Your task to perform on an android device: Install the CNN app Image 0: 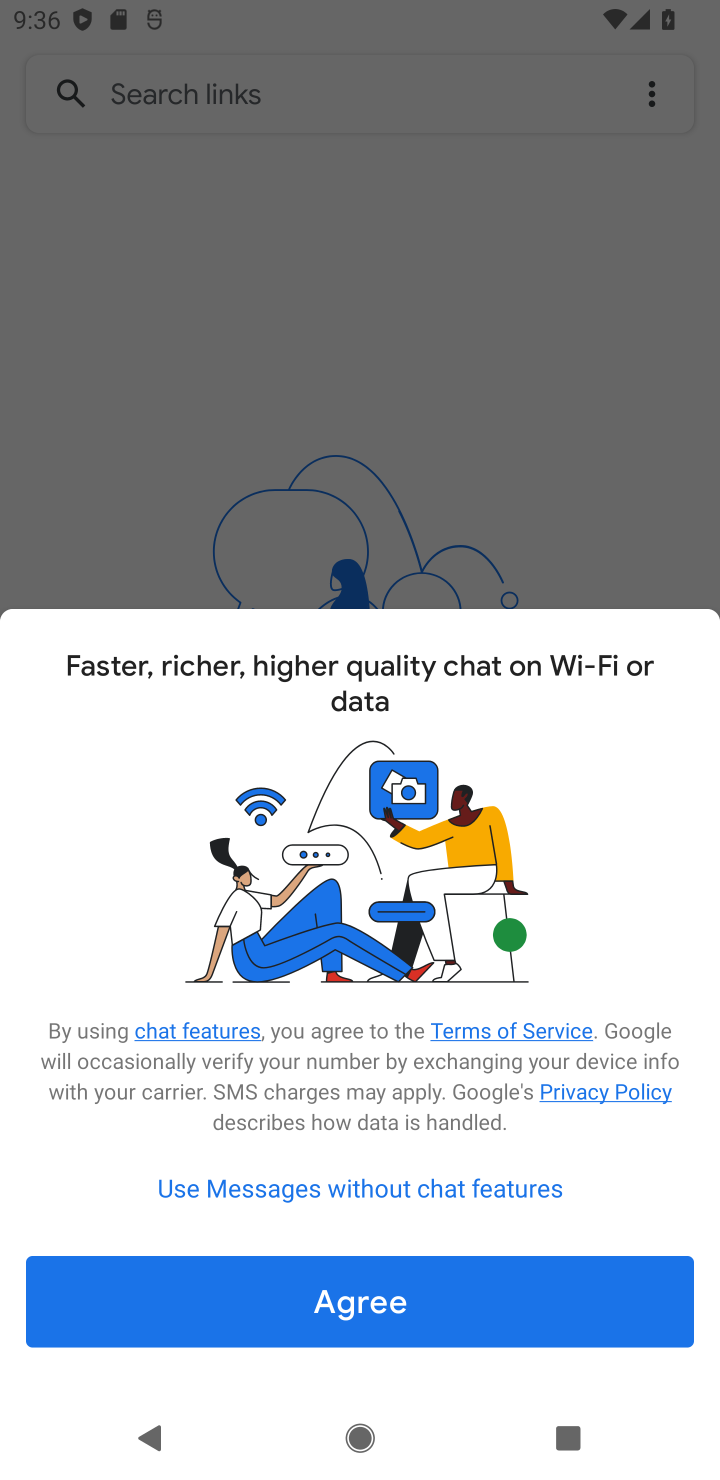
Step 0: press home button
Your task to perform on an android device: Install the CNN app Image 1: 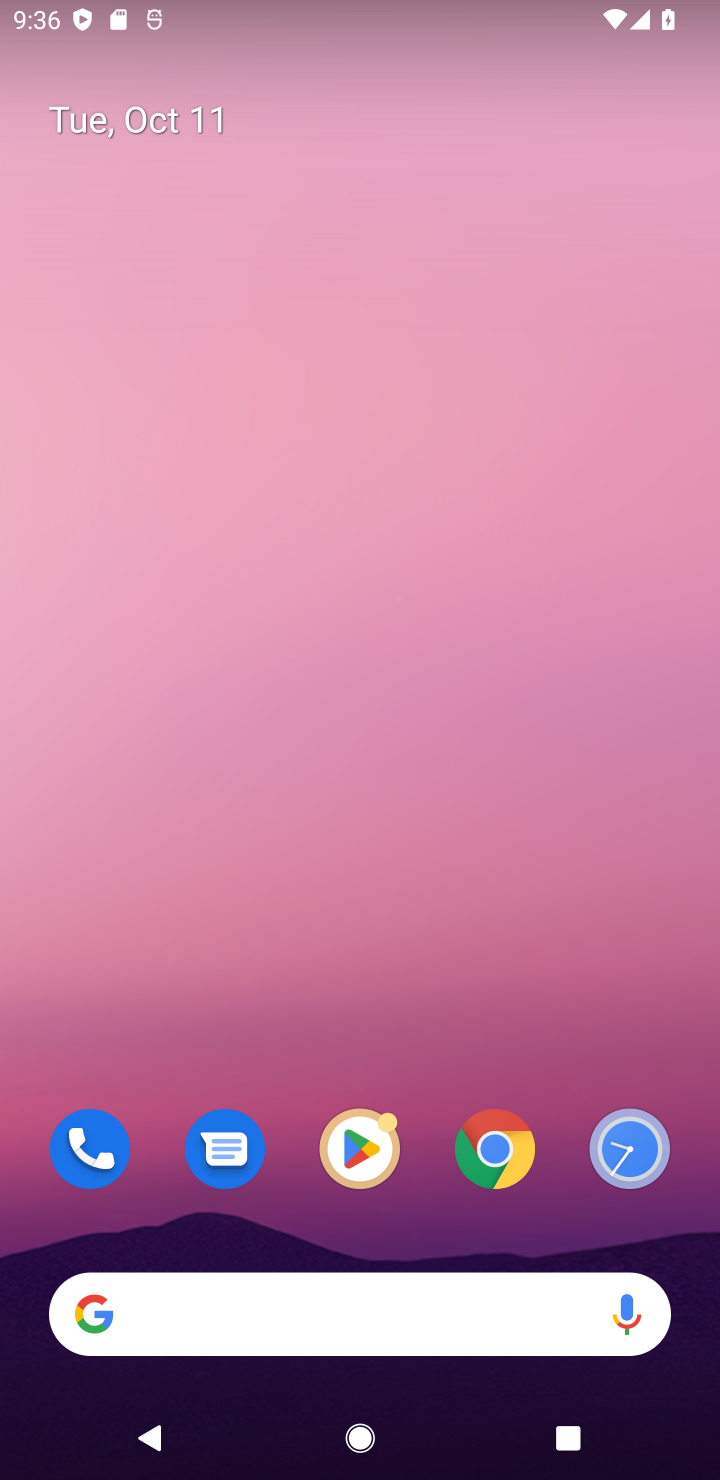
Step 1: click (359, 1154)
Your task to perform on an android device: Install the CNN app Image 2: 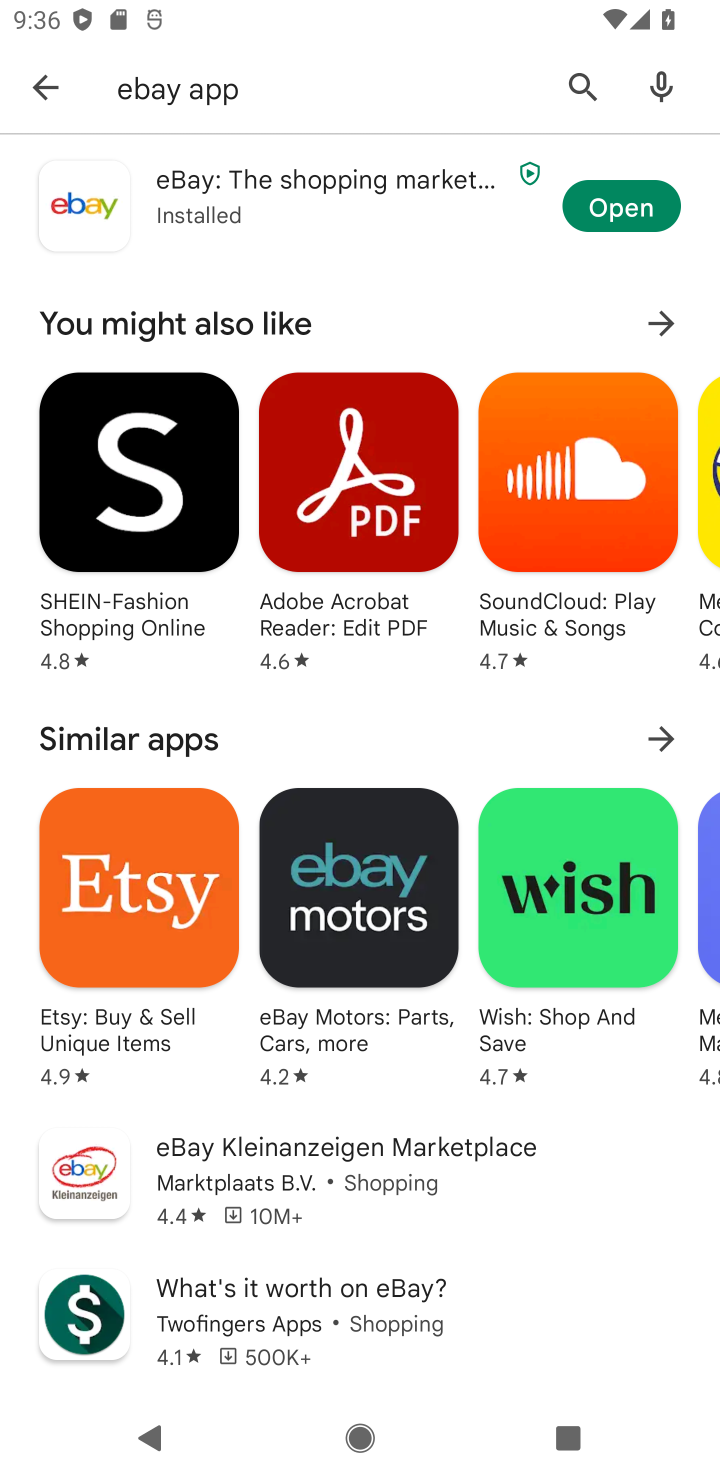
Step 2: click (41, 88)
Your task to perform on an android device: Install the CNN app Image 3: 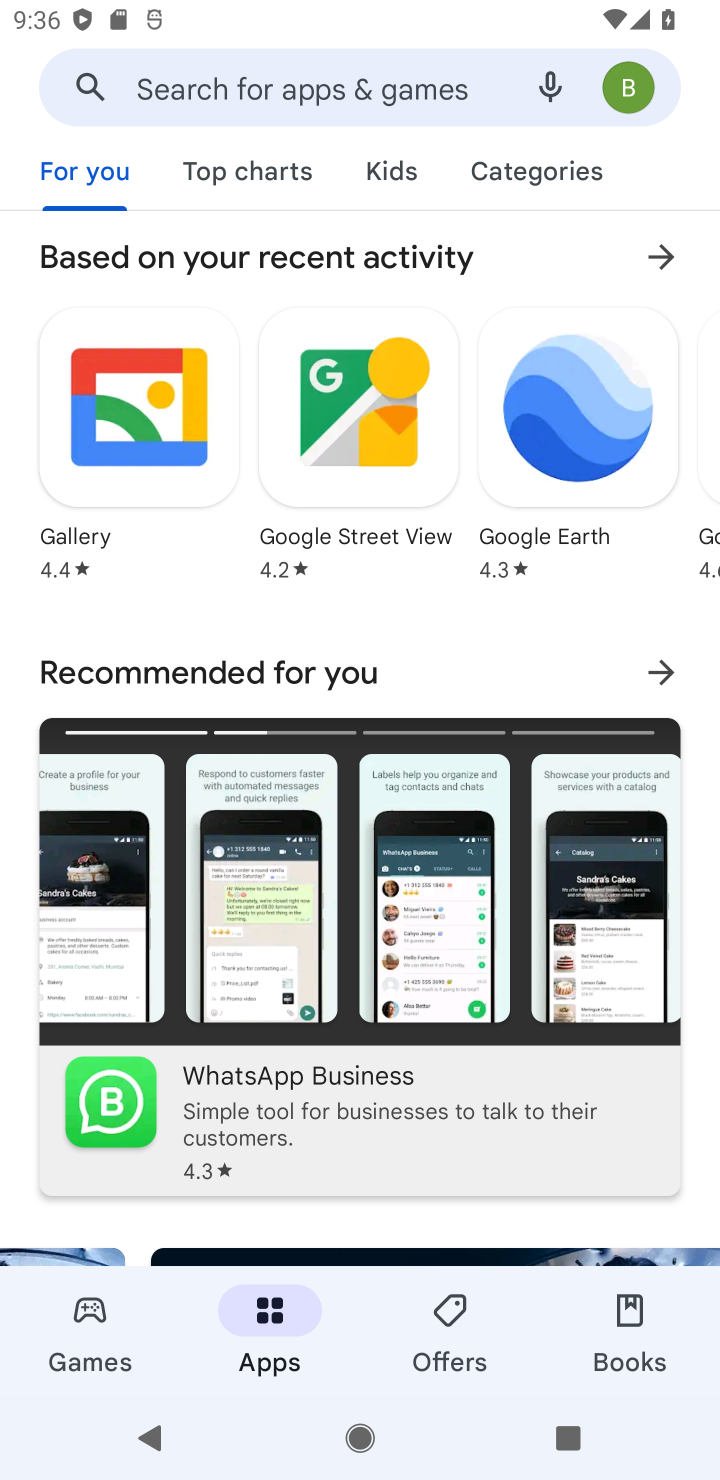
Step 3: click (287, 78)
Your task to perform on an android device: Install the CNN app Image 4: 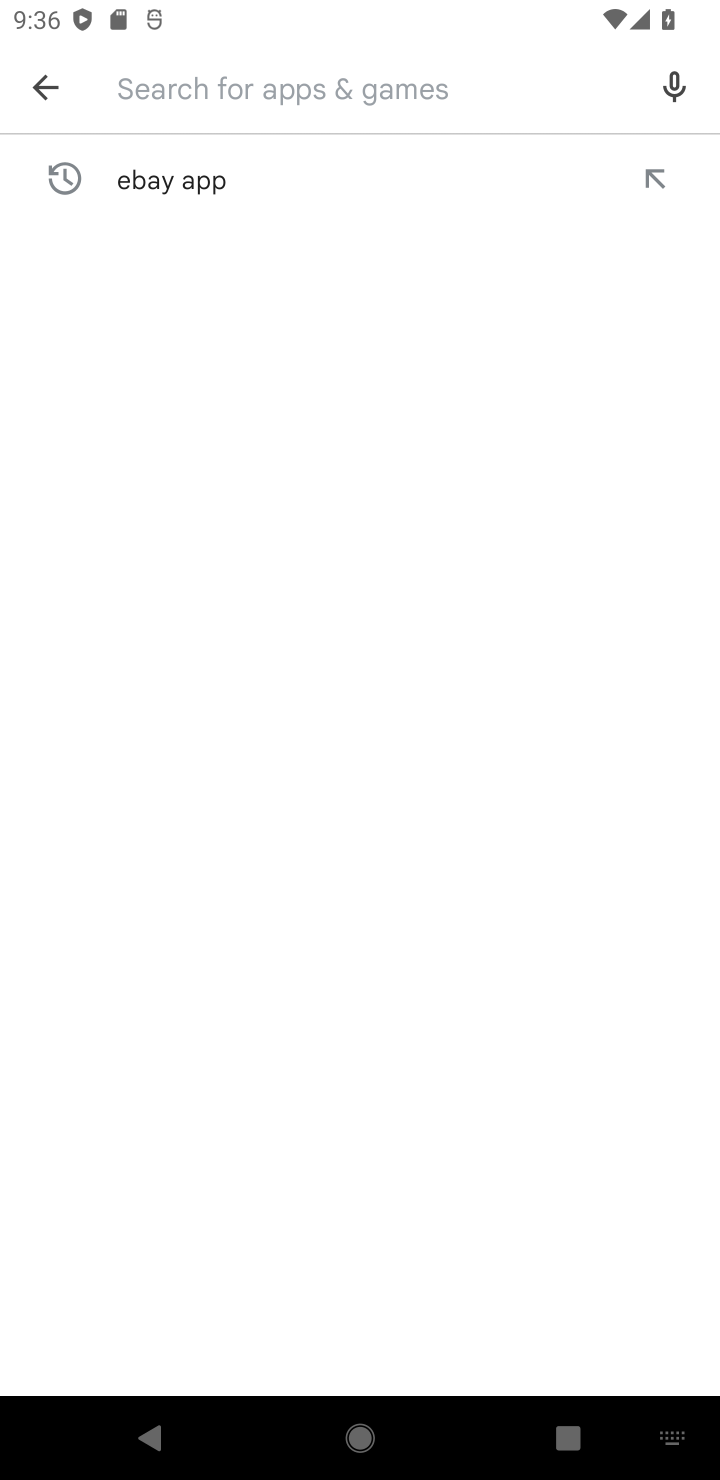
Step 4: type "Install the CNN app"
Your task to perform on an android device: Install the CNN app Image 5: 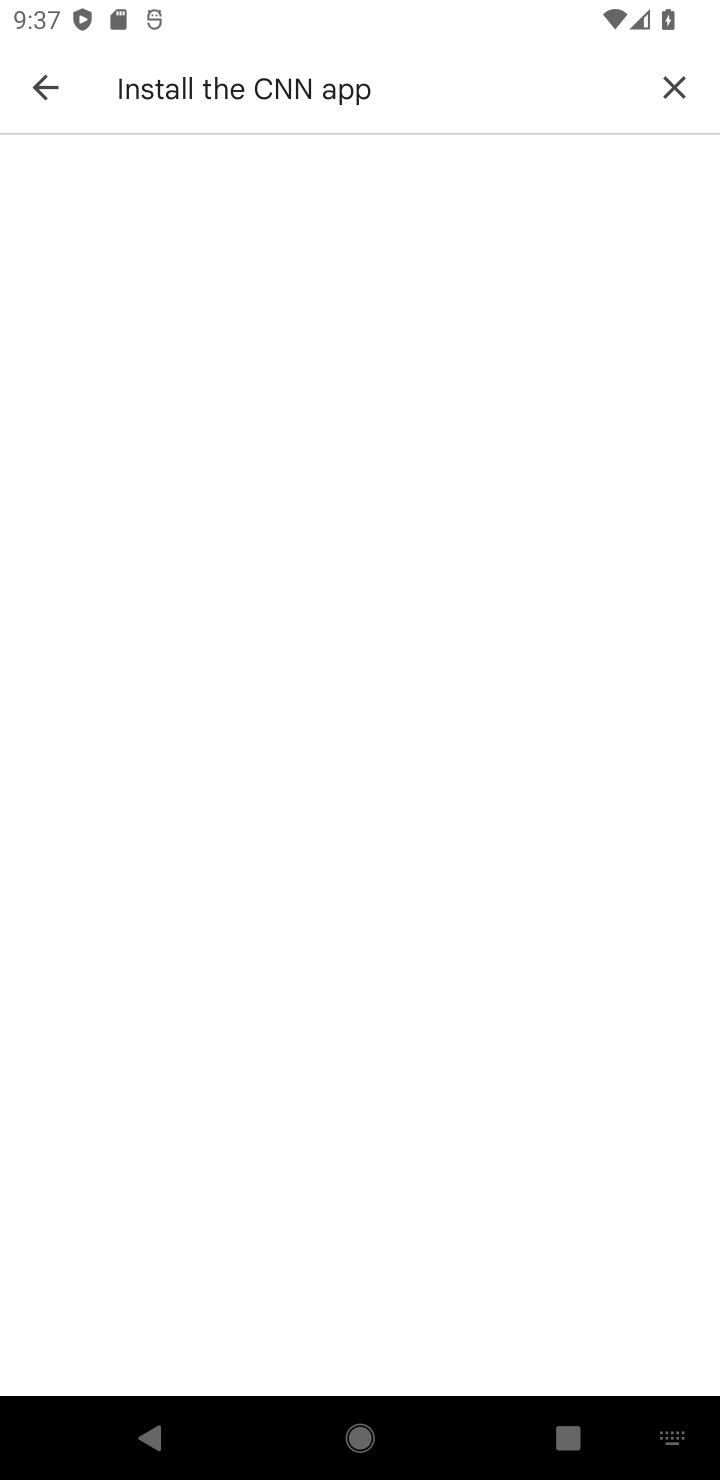
Step 5: click (677, 89)
Your task to perform on an android device: Install the CNN app Image 6: 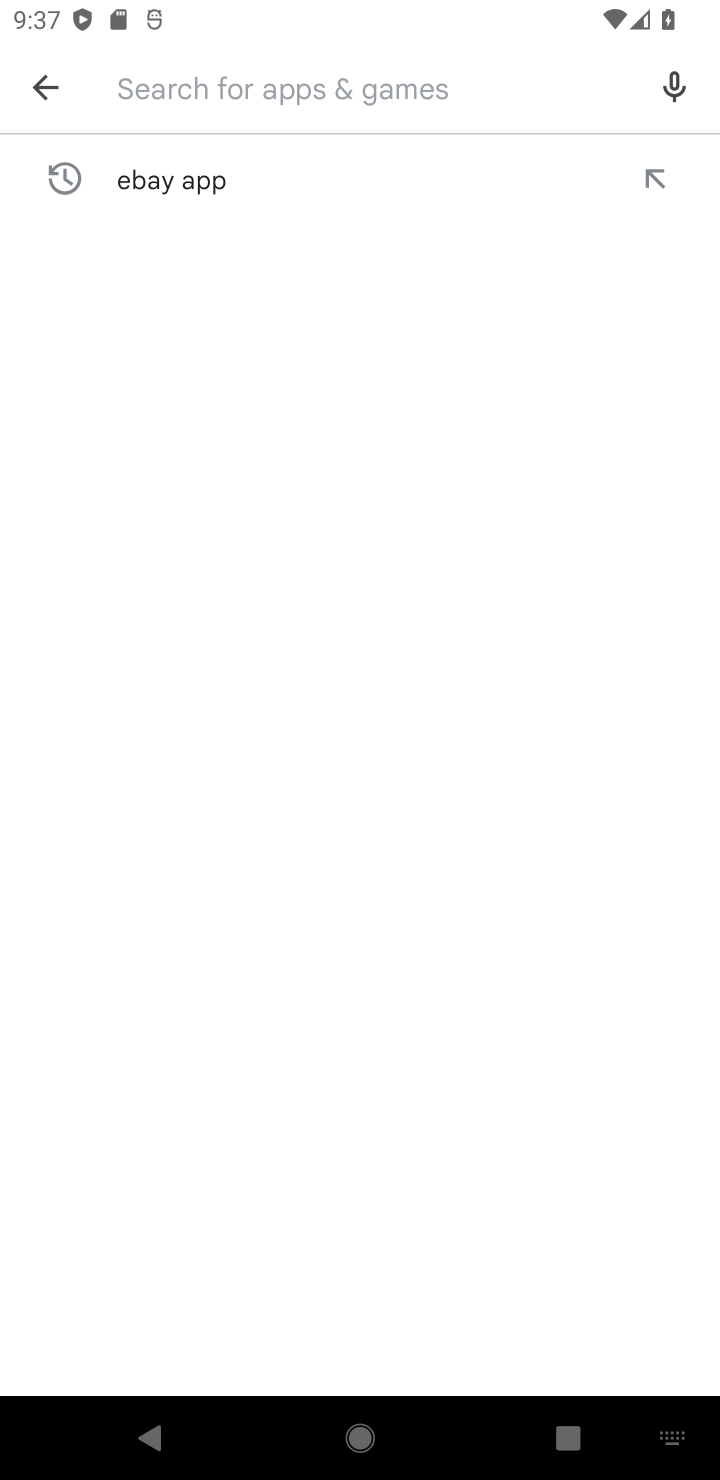
Step 6: click (46, 92)
Your task to perform on an android device: Install the CNN app Image 7: 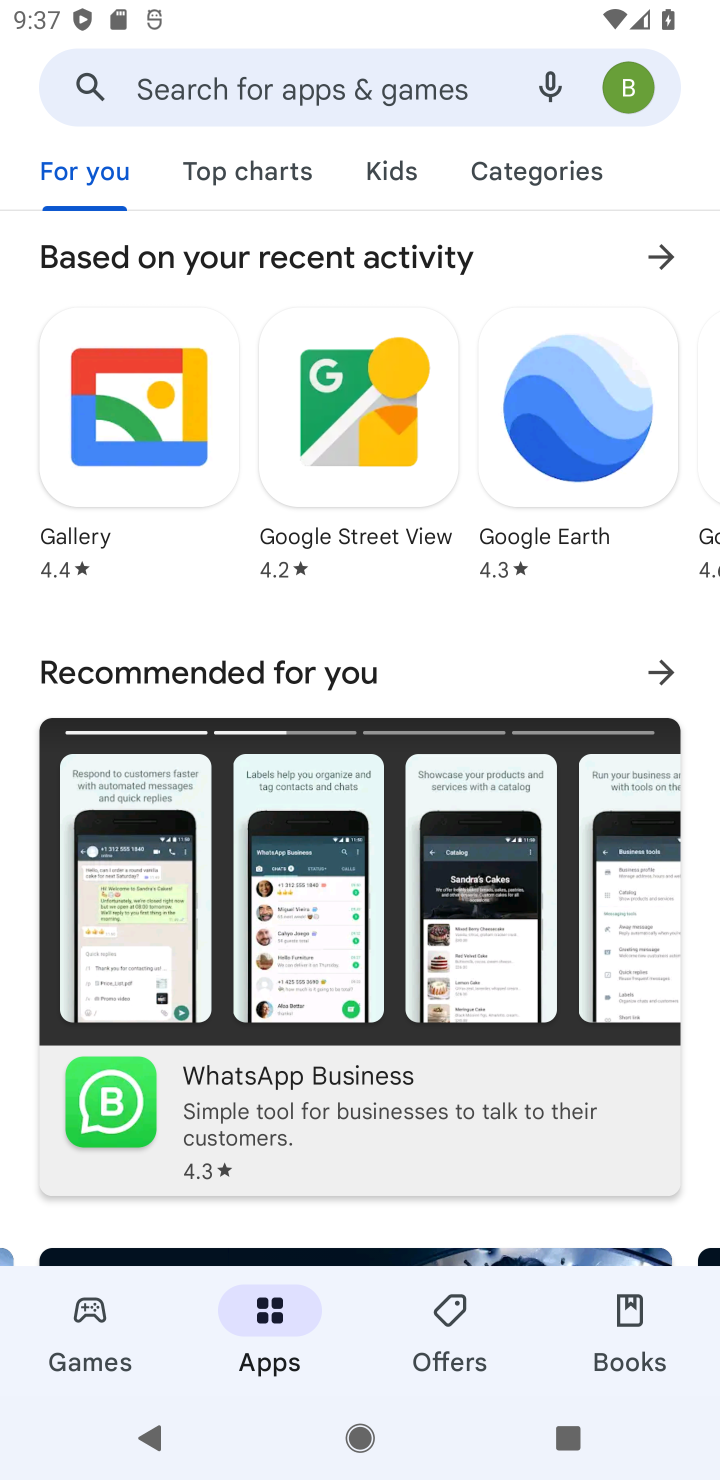
Step 7: click (268, 1302)
Your task to perform on an android device: Install the CNN app Image 8: 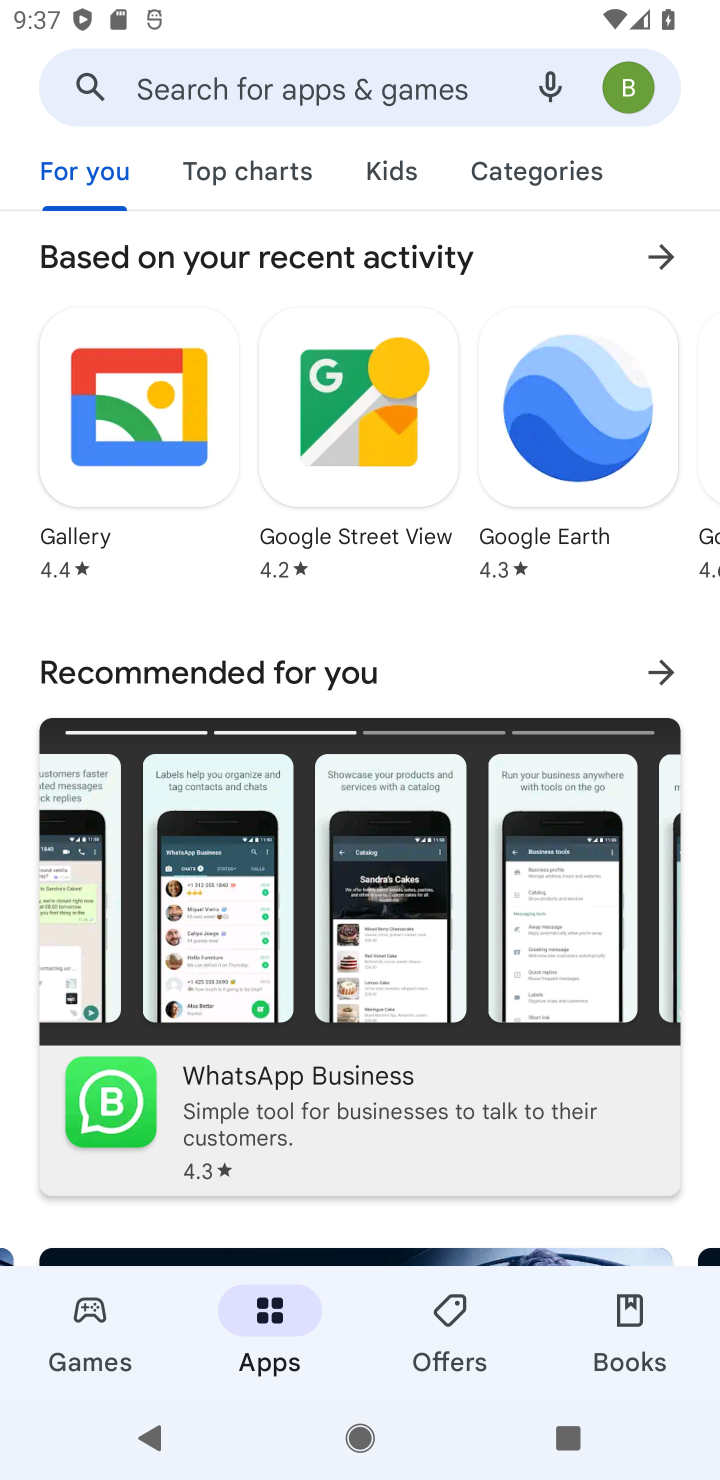
Step 8: click (302, 100)
Your task to perform on an android device: Install the CNN app Image 9: 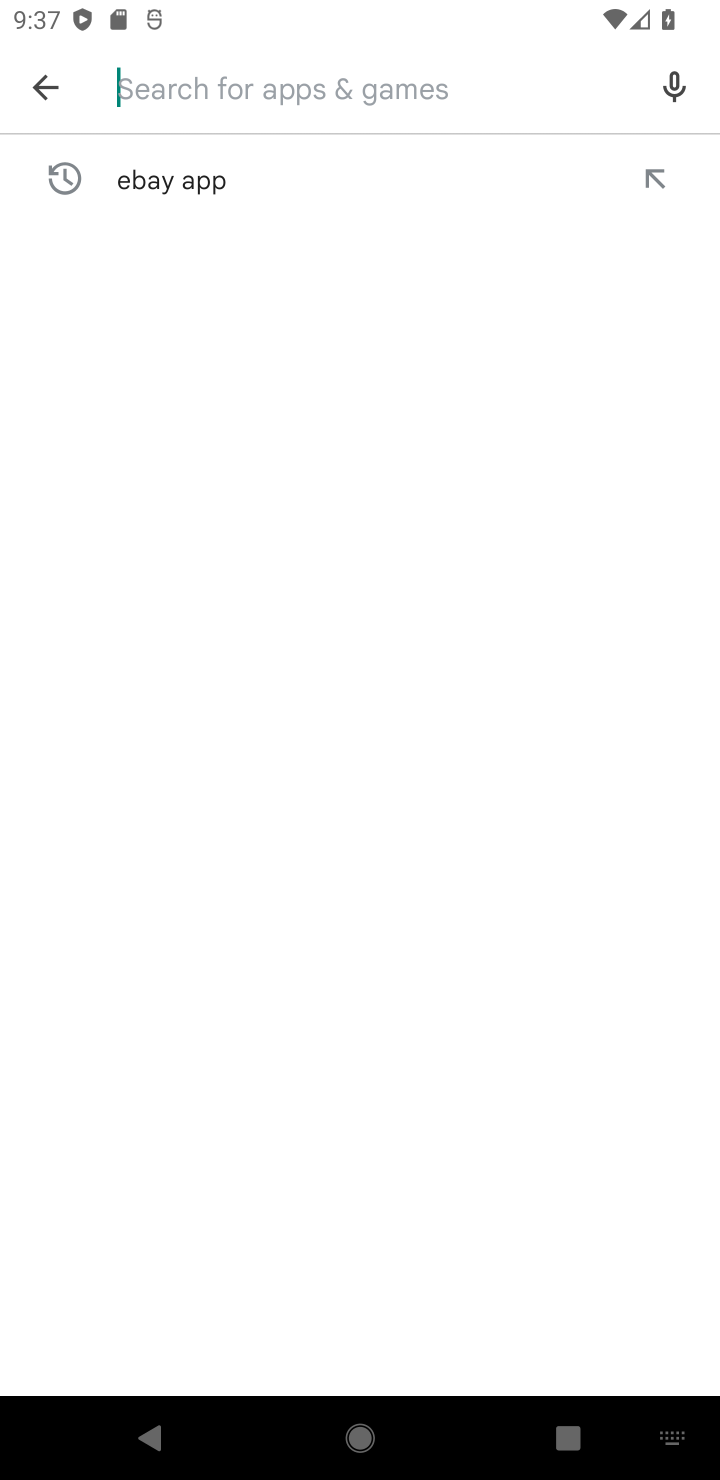
Step 9: type "cnn"
Your task to perform on an android device: Install the CNN app Image 10: 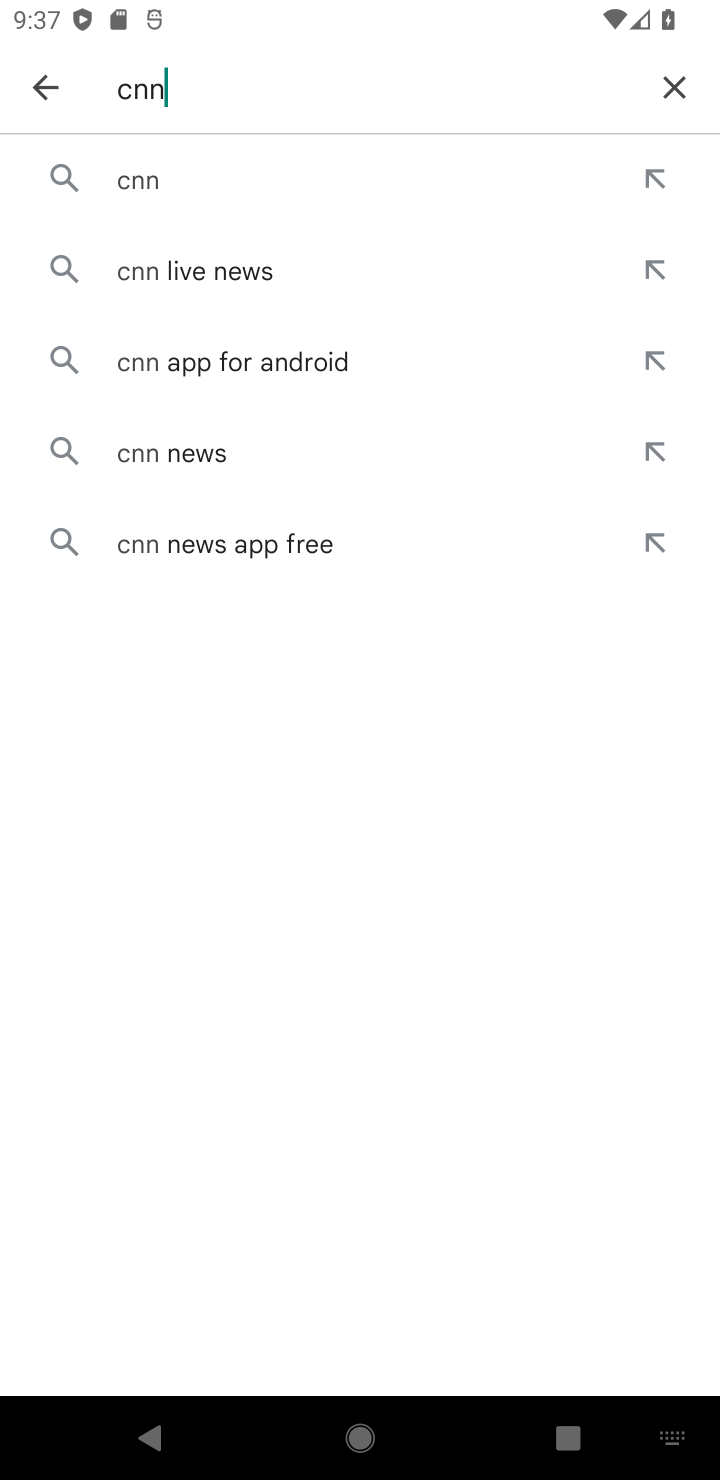
Step 10: click (152, 181)
Your task to perform on an android device: Install the CNN app Image 11: 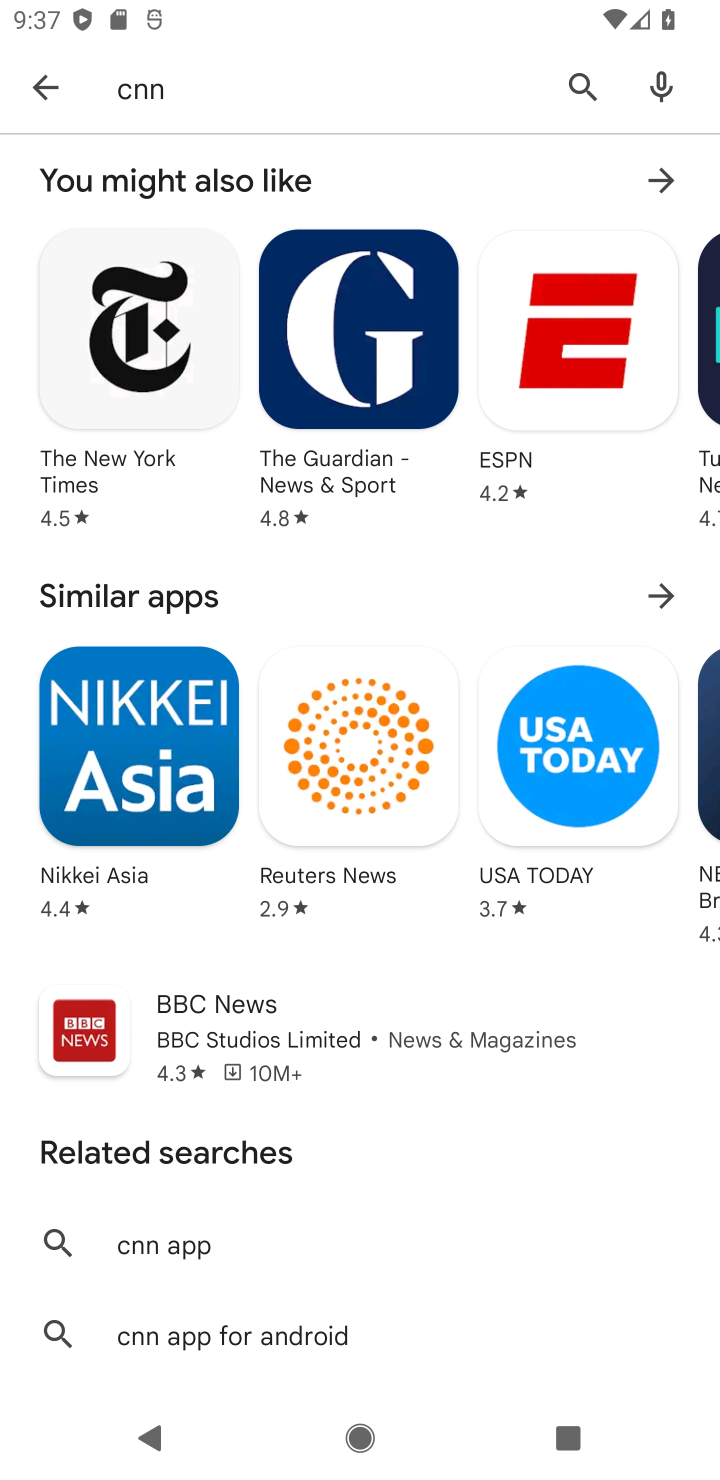
Step 11: click (172, 1243)
Your task to perform on an android device: Install the CNN app Image 12: 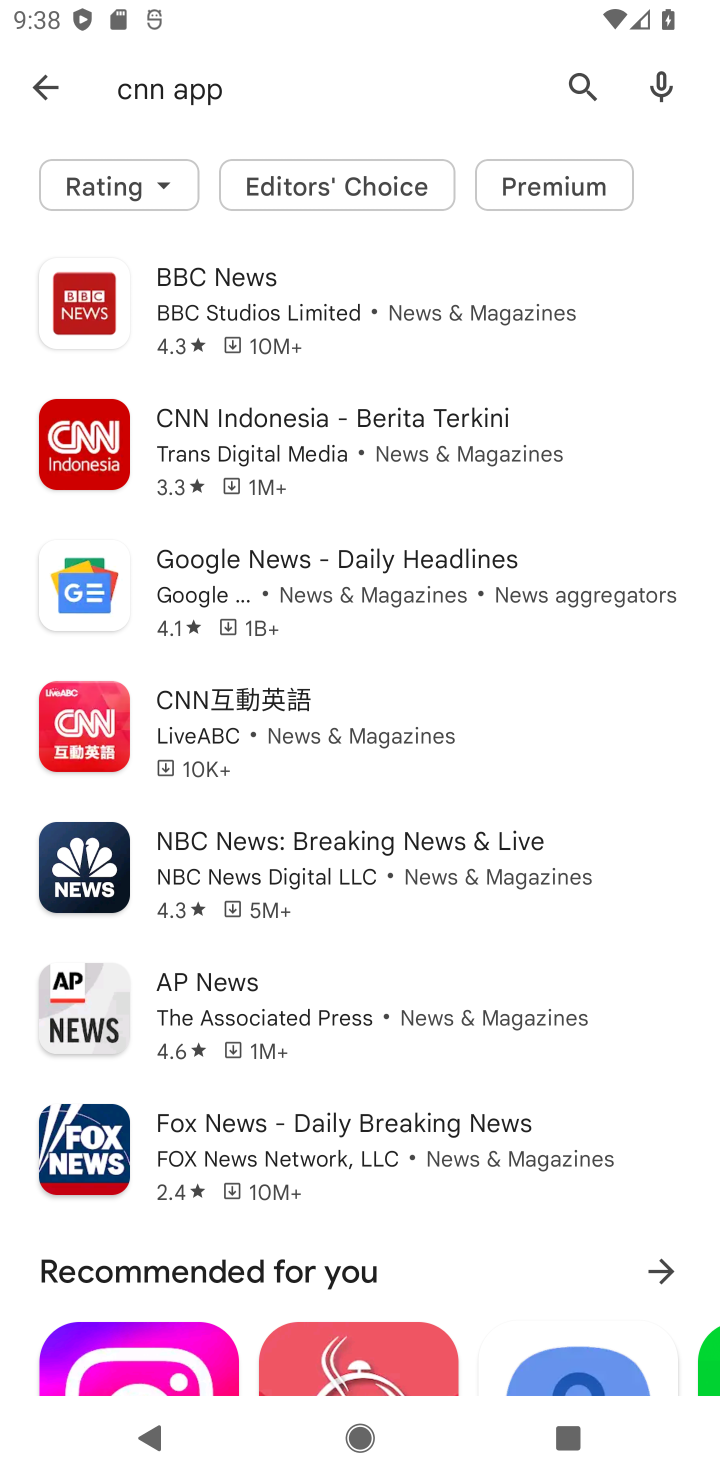
Step 12: click (313, 467)
Your task to perform on an android device: Install the CNN app Image 13: 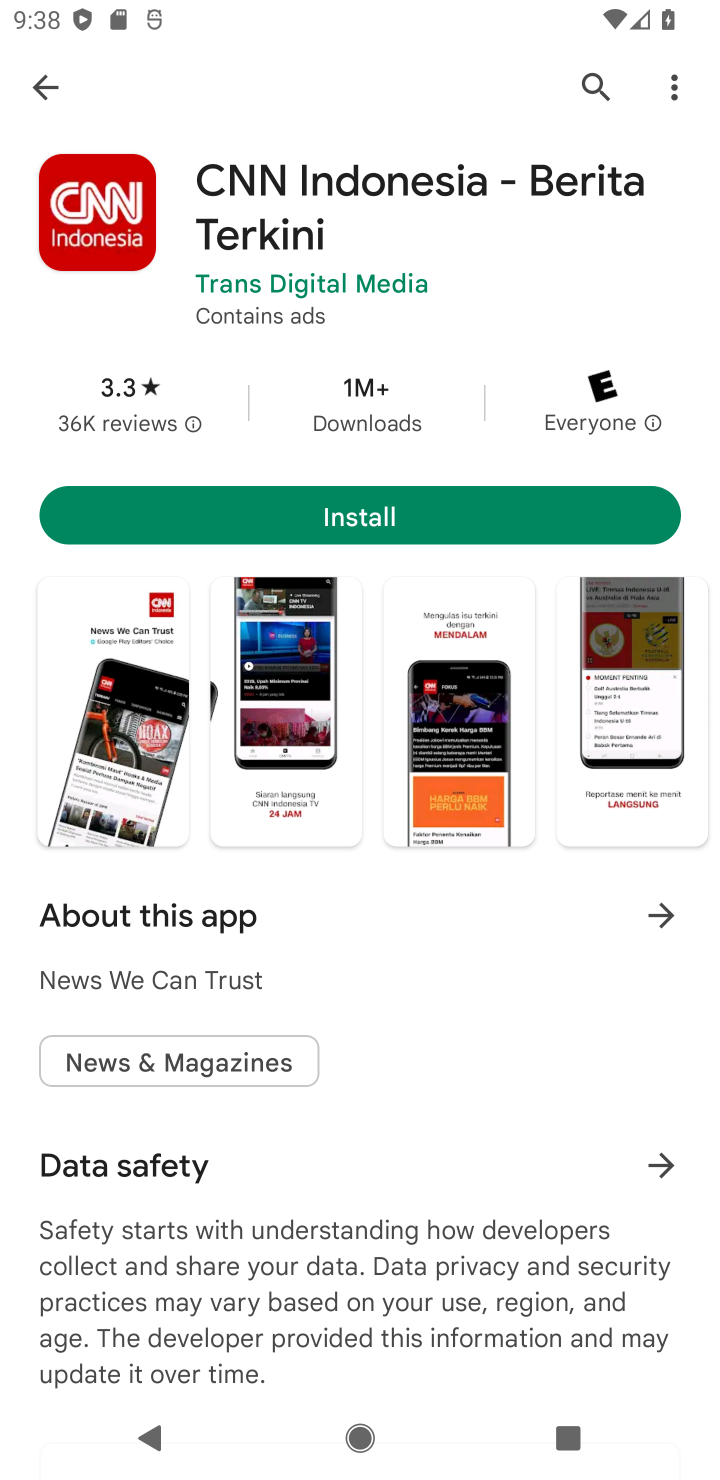
Step 13: click (371, 522)
Your task to perform on an android device: Install the CNN app Image 14: 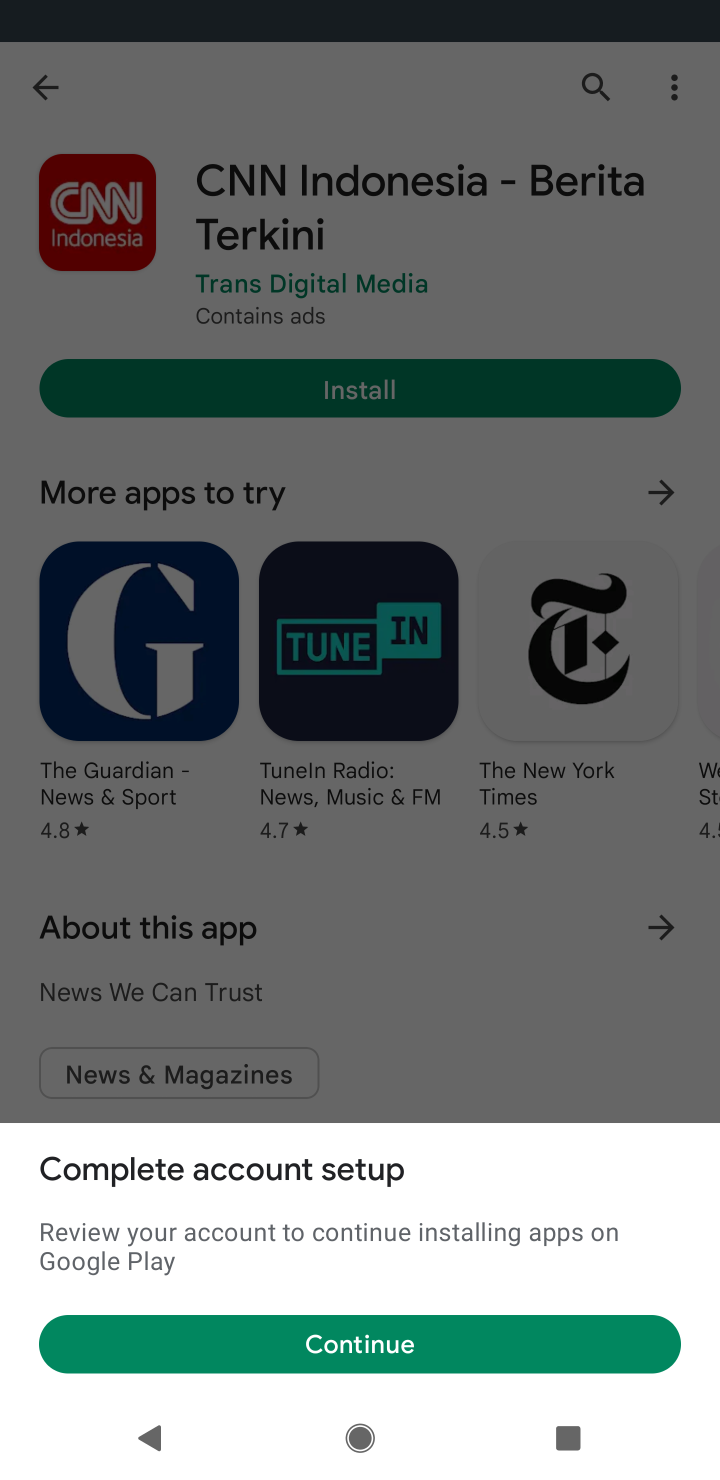
Step 14: click (364, 1350)
Your task to perform on an android device: Install the CNN app Image 15: 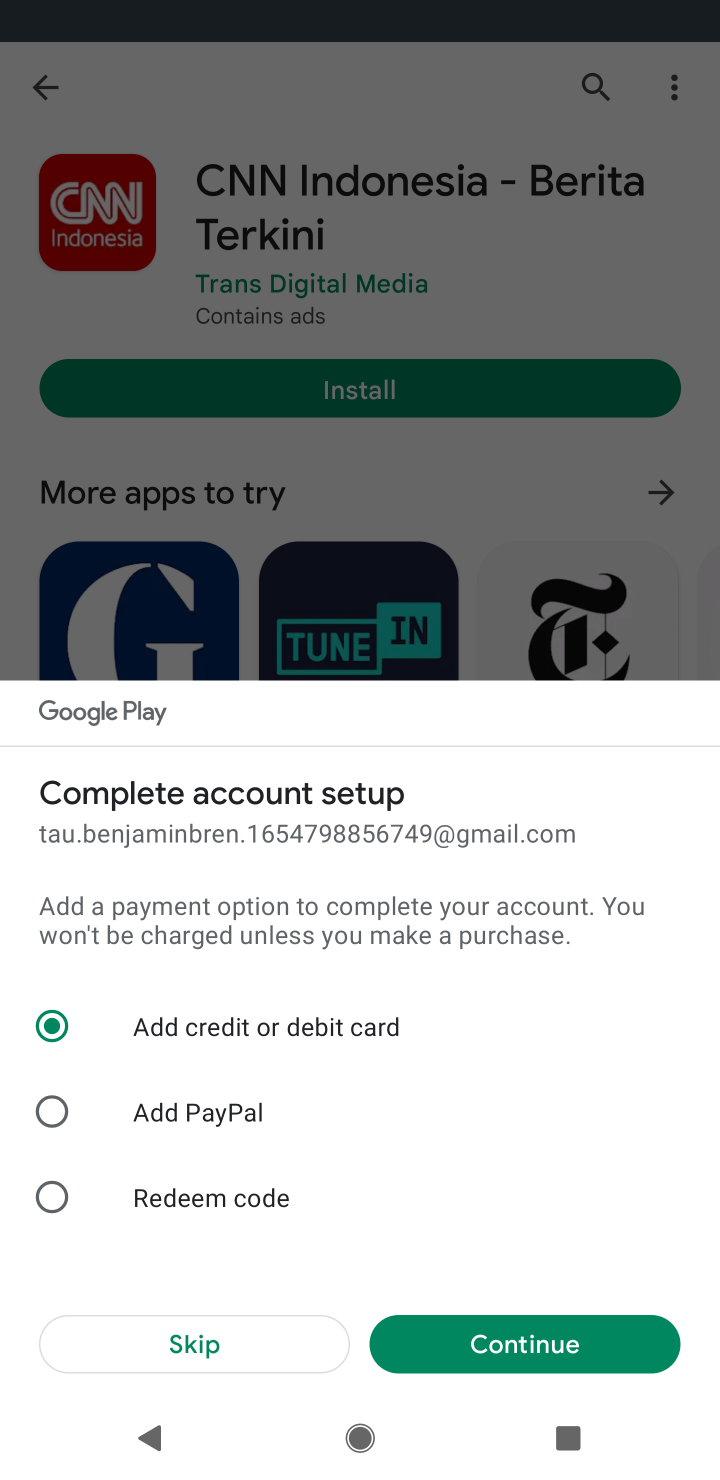
Step 15: click (169, 1349)
Your task to perform on an android device: Install the CNN app Image 16: 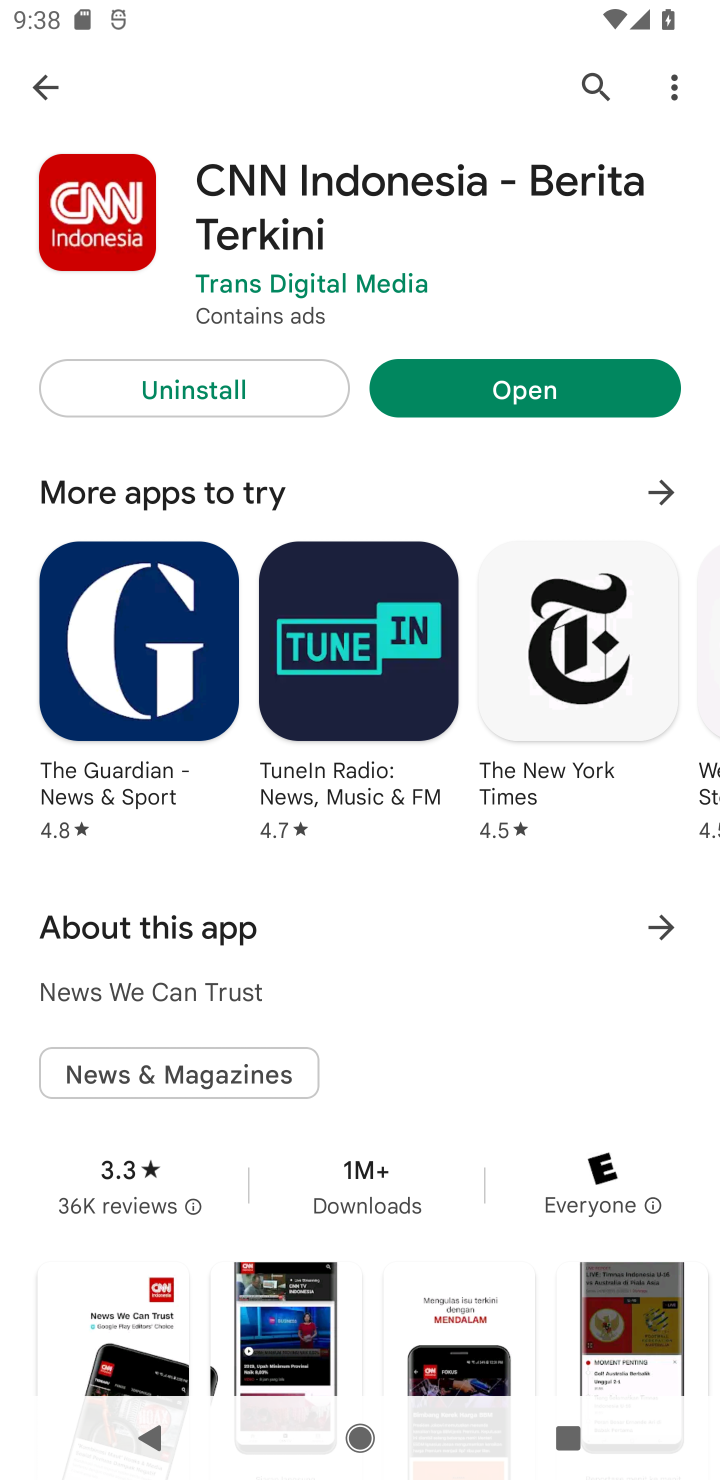
Step 16: click (515, 396)
Your task to perform on an android device: Install the CNN app Image 17: 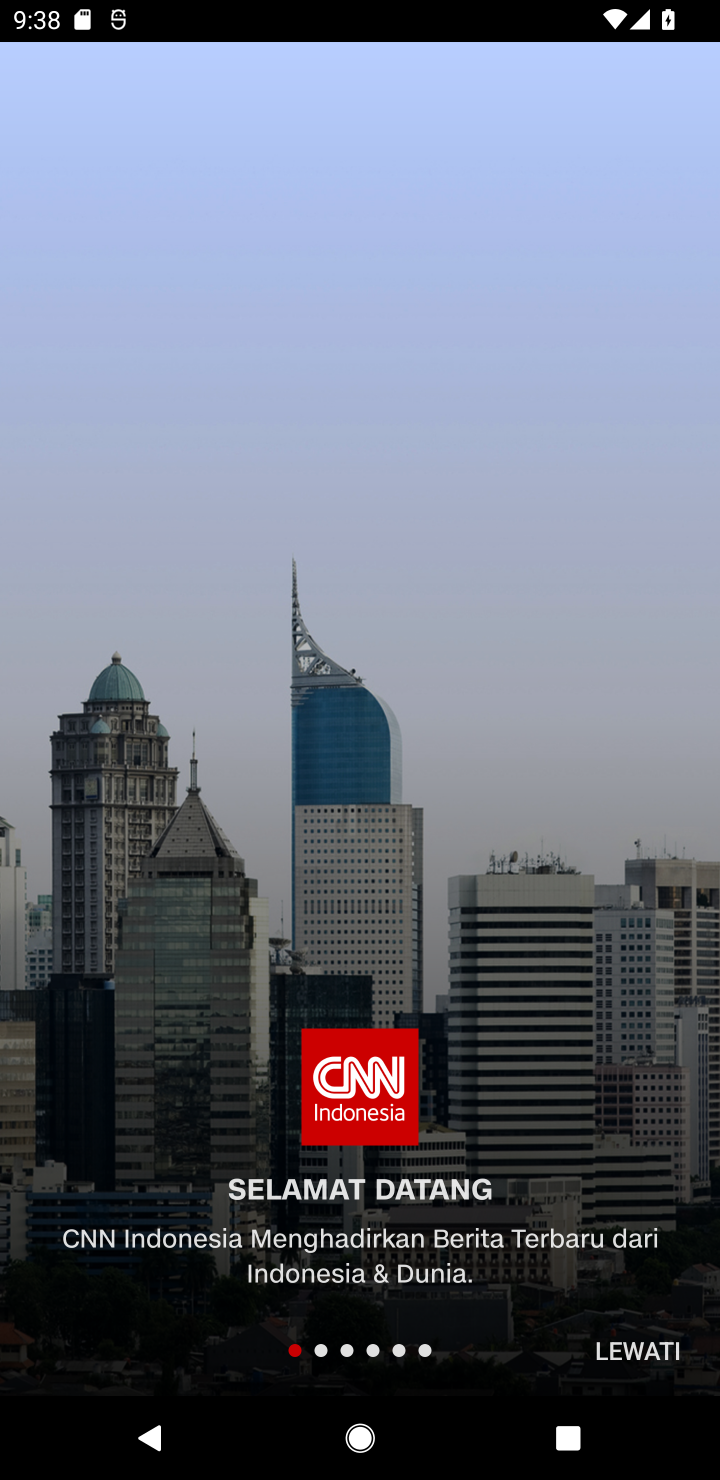
Step 17: task complete